Your task to perform on an android device: Play the last video I watched on Youtube Image 0: 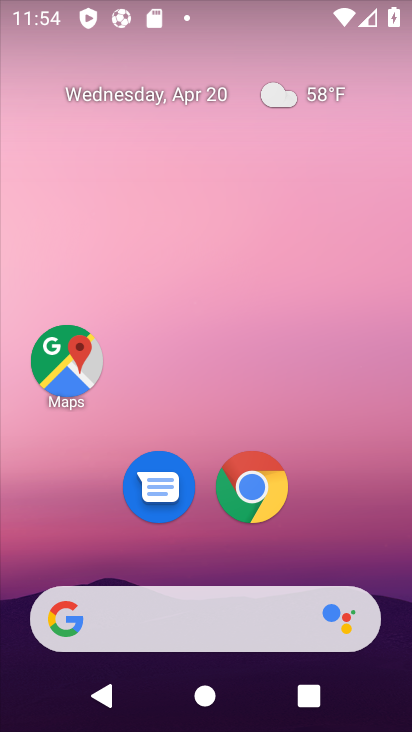
Step 0: drag from (396, 460) to (411, 612)
Your task to perform on an android device: Play the last video I watched on Youtube Image 1: 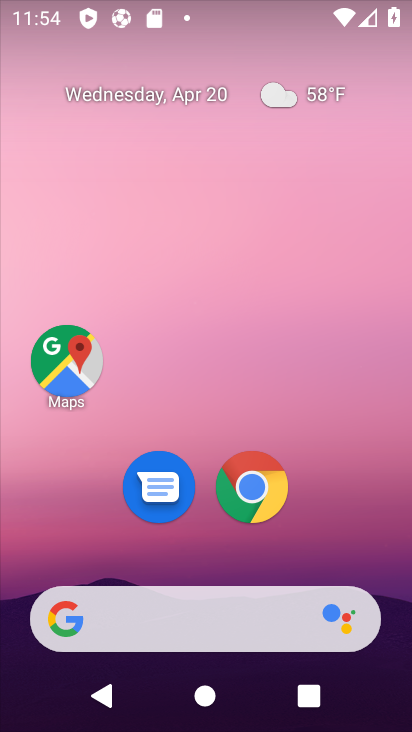
Step 1: drag from (409, 610) to (411, 394)
Your task to perform on an android device: Play the last video I watched on Youtube Image 2: 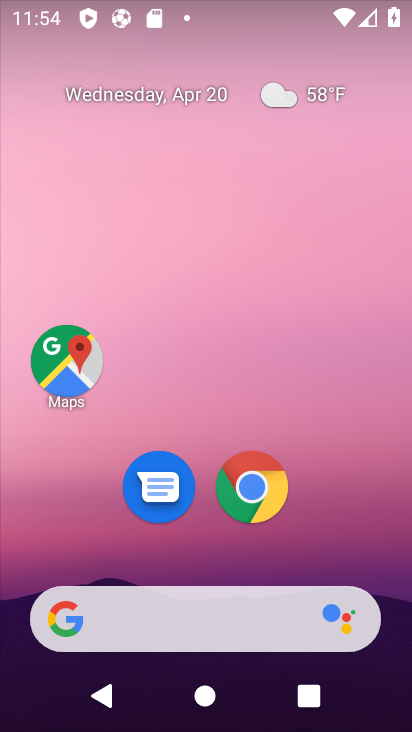
Step 2: drag from (373, 581) to (347, 25)
Your task to perform on an android device: Play the last video I watched on Youtube Image 3: 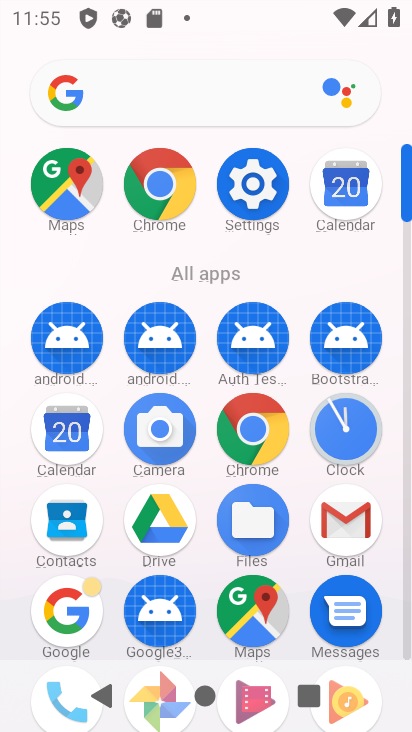
Step 3: drag from (406, 487) to (406, 438)
Your task to perform on an android device: Play the last video I watched on Youtube Image 4: 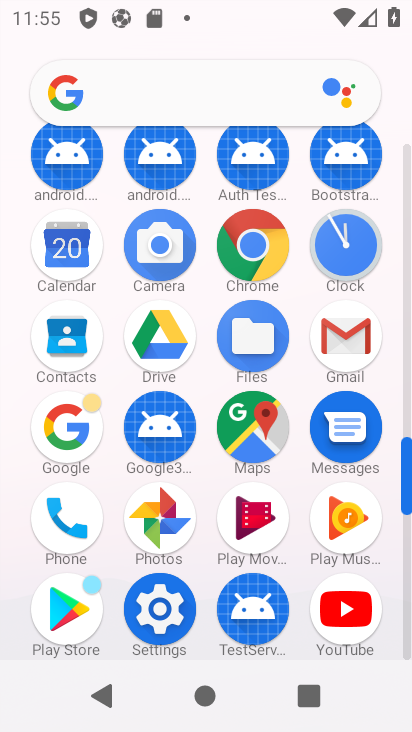
Step 4: click (339, 625)
Your task to perform on an android device: Play the last video I watched on Youtube Image 5: 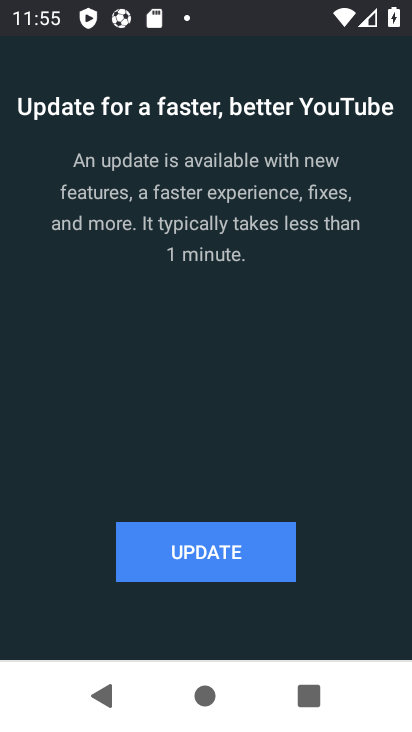
Step 5: click (217, 575)
Your task to perform on an android device: Play the last video I watched on Youtube Image 6: 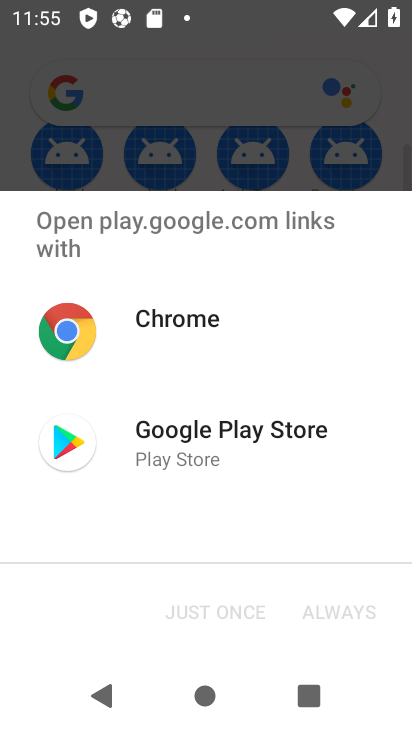
Step 6: click (204, 446)
Your task to perform on an android device: Play the last video I watched on Youtube Image 7: 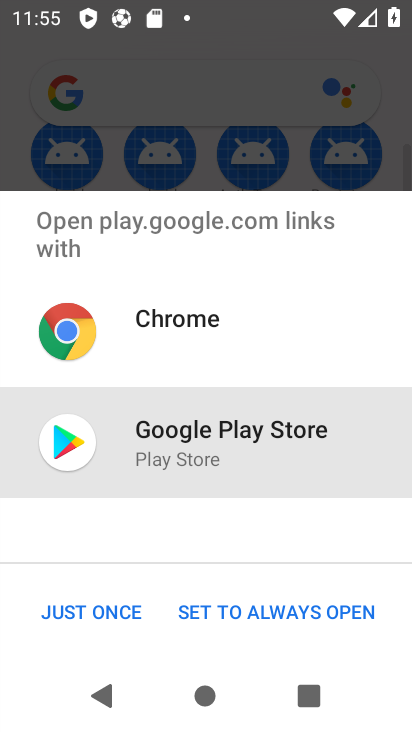
Step 7: click (102, 615)
Your task to perform on an android device: Play the last video I watched on Youtube Image 8: 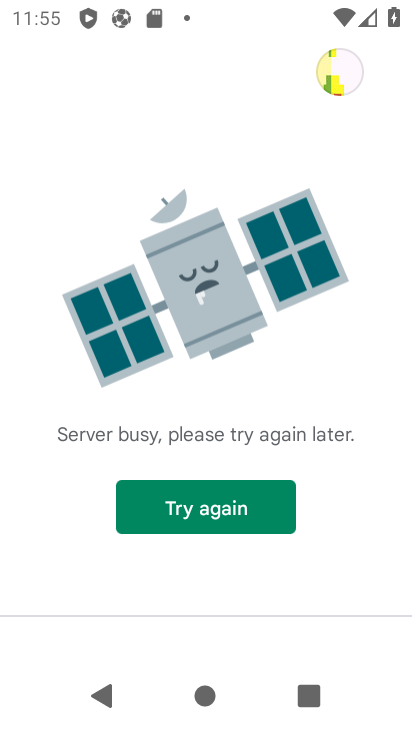
Step 8: click (220, 507)
Your task to perform on an android device: Play the last video I watched on Youtube Image 9: 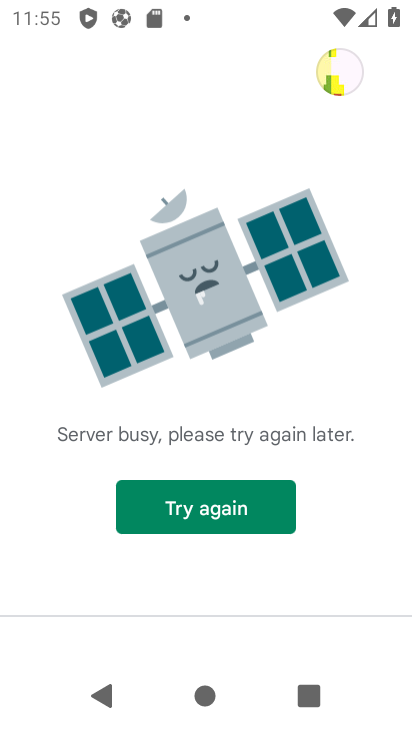
Step 9: task complete